Your task to perform on an android device: turn off priority inbox in the gmail app Image 0: 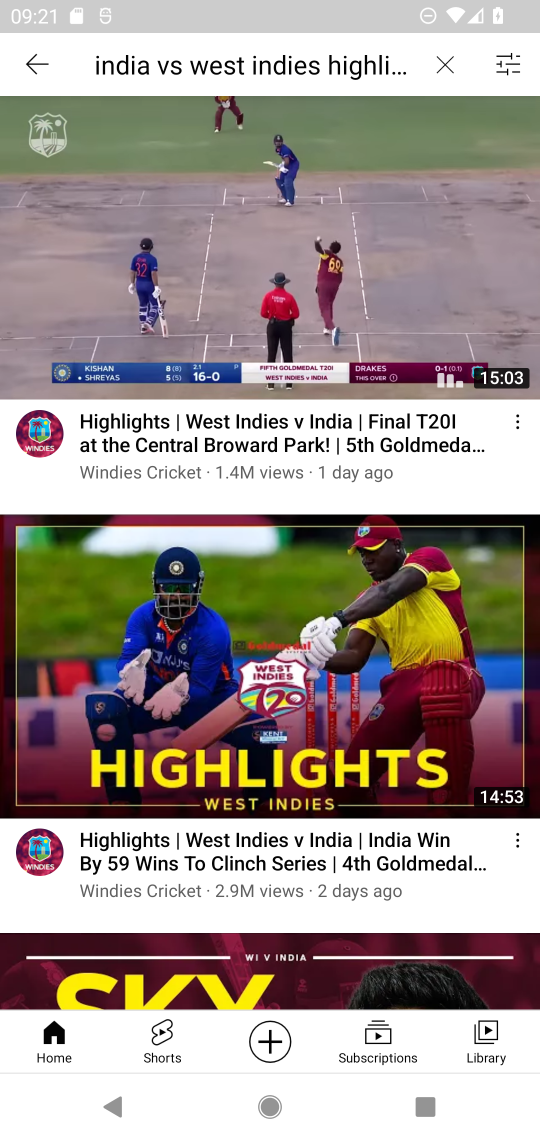
Step 0: press home button
Your task to perform on an android device: turn off priority inbox in the gmail app Image 1: 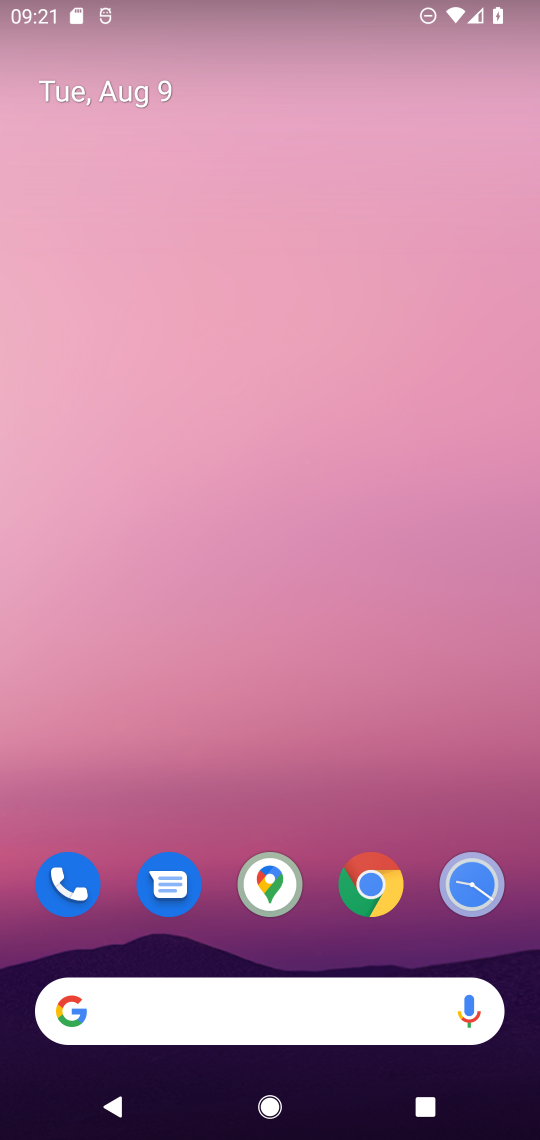
Step 1: drag from (132, 975) to (383, 134)
Your task to perform on an android device: turn off priority inbox in the gmail app Image 2: 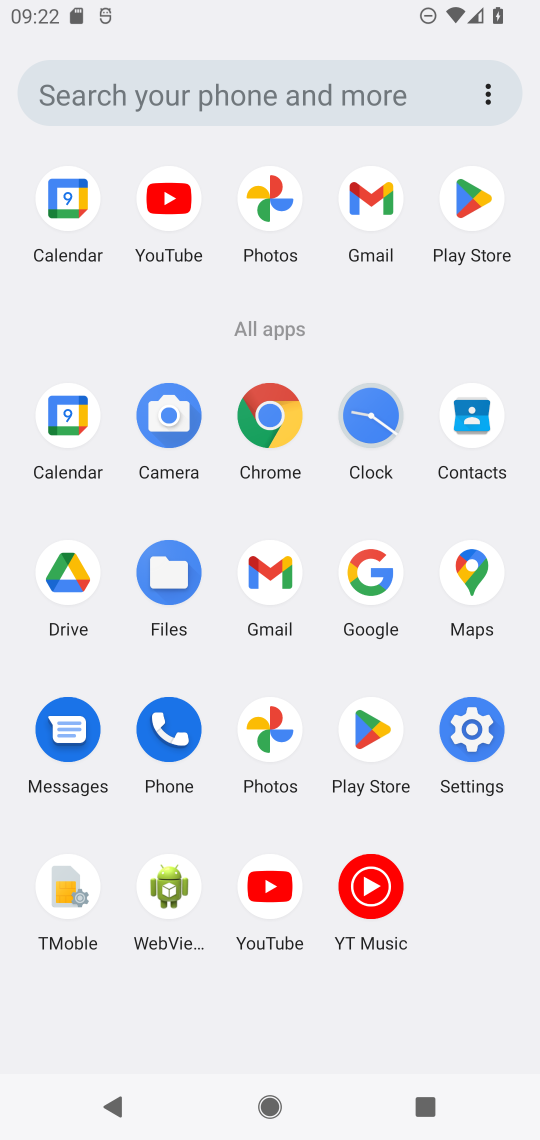
Step 2: click (268, 594)
Your task to perform on an android device: turn off priority inbox in the gmail app Image 3: 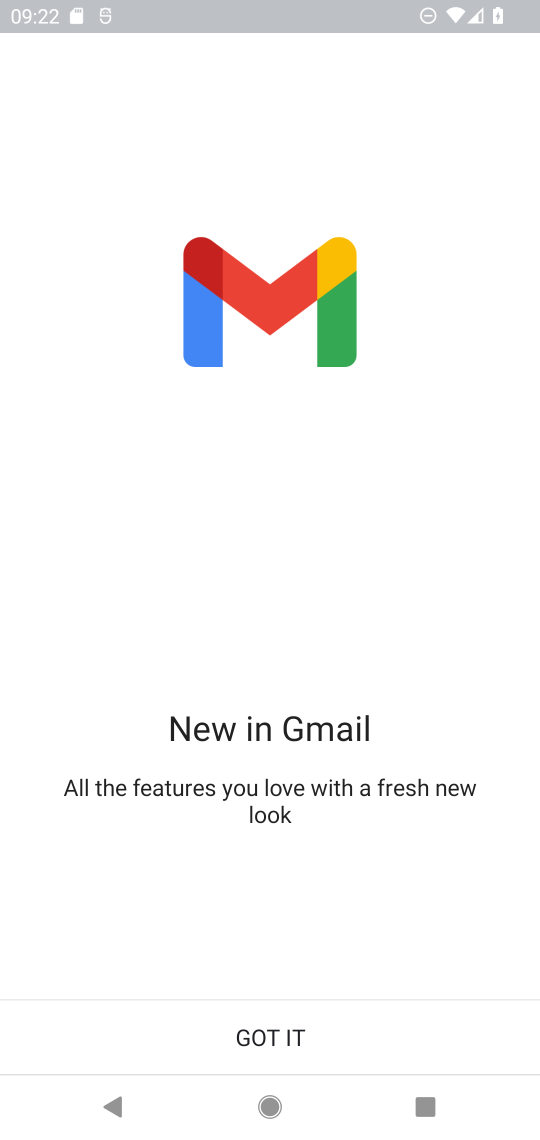
Step 3: click (339, 1028)
Your task to perform on an android device: turn off priority inbox in the gmail app Image 4: 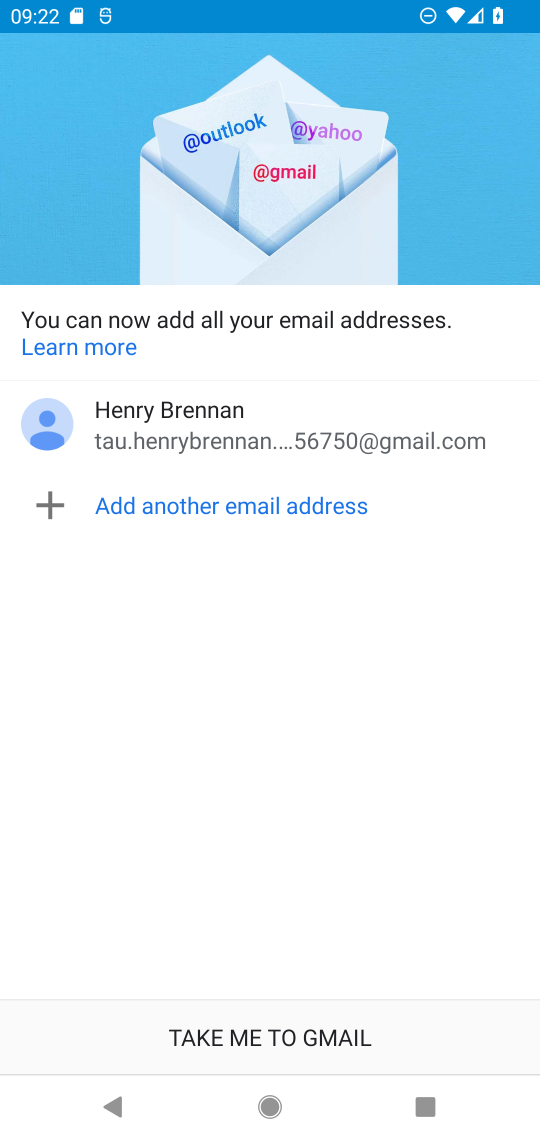
Step 4: click (339, 1022)
Your task to perform on an android device: turn off priority inbox in the gmail app Image 5: 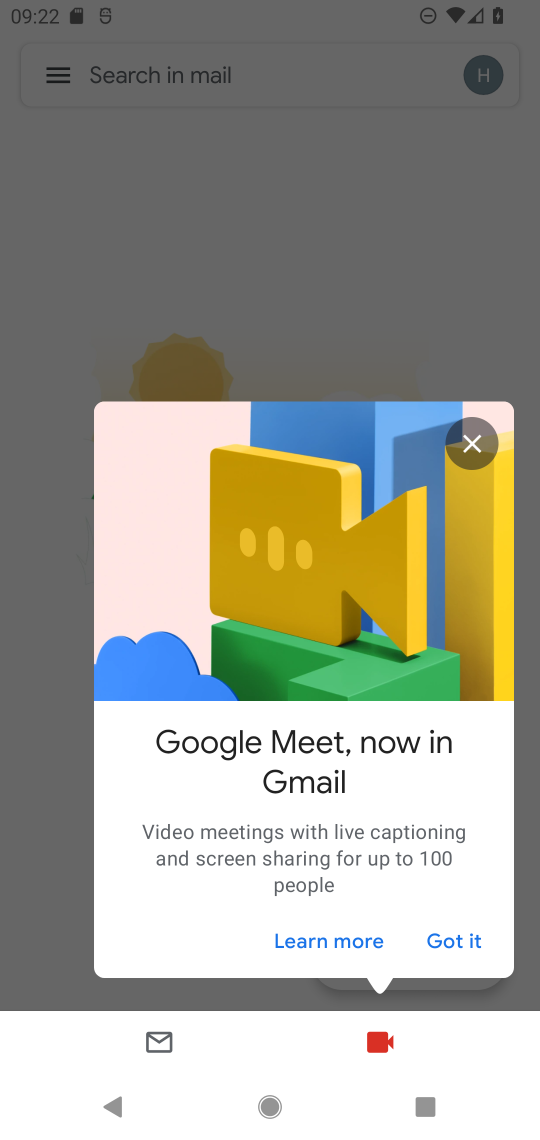
Step 5: click (454, 931)
Your task to perform on an android device: turn off priority inbox in the gmail app Image 6: 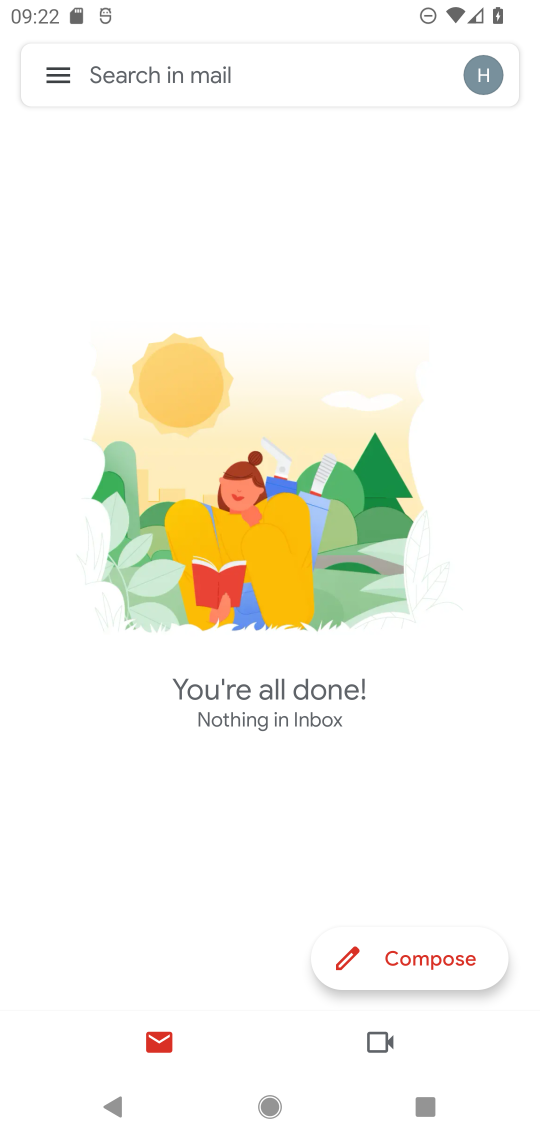
Step 6: click (47, 69)
Your task to perform on an android device: turn off priority inbox in the gmail app Image 7: 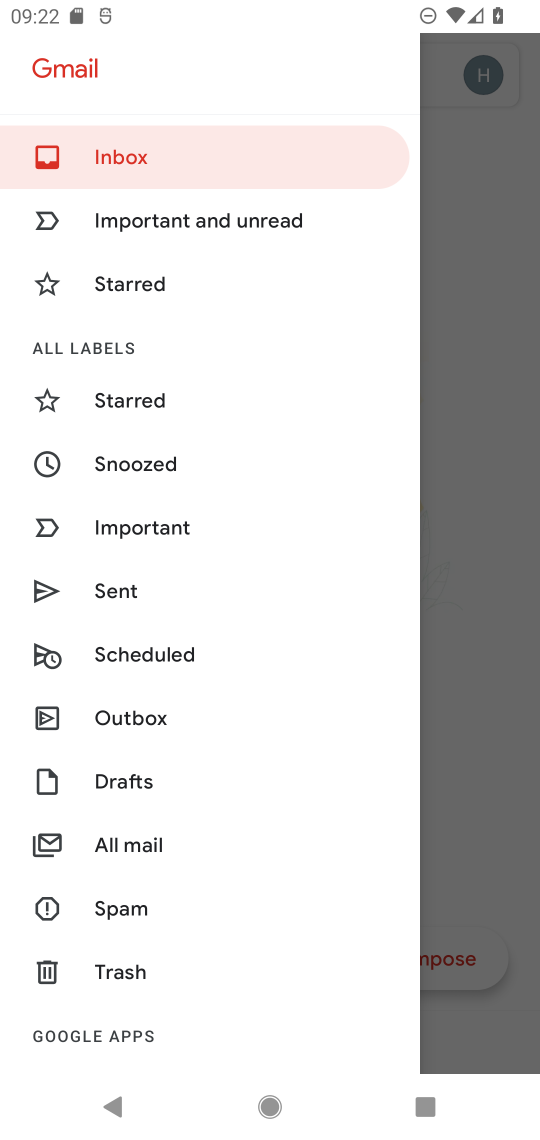
Step 7: drag from (148, 921) to (273, 319)
Your task to perform on an android device: turn off priority inbox in the gmail app Image 8: 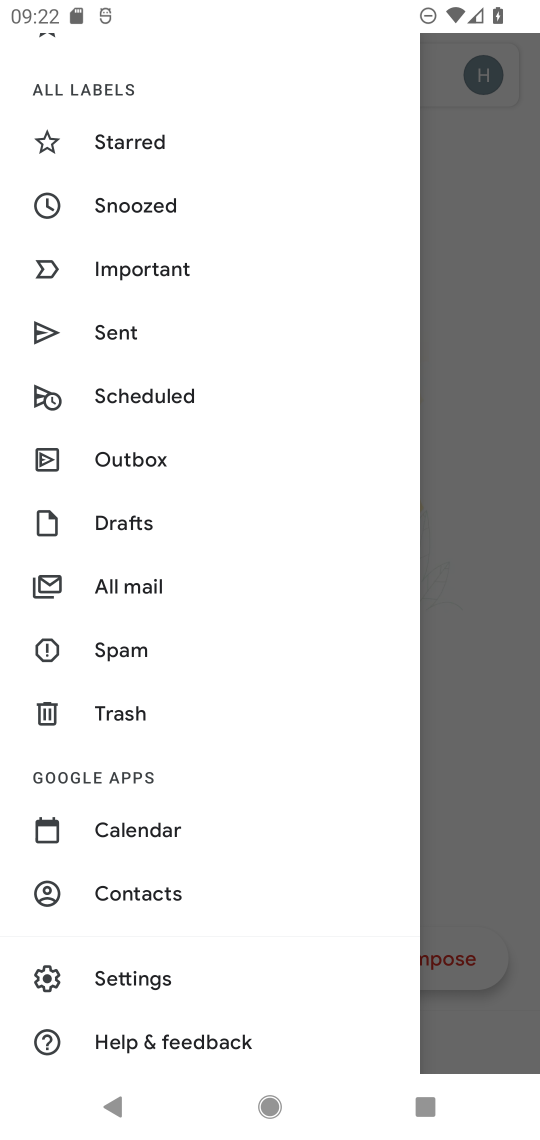
Step 8: click (140, 978)
Your task to perform on an android device: turn off priority inbox in the gmail app Image 9: 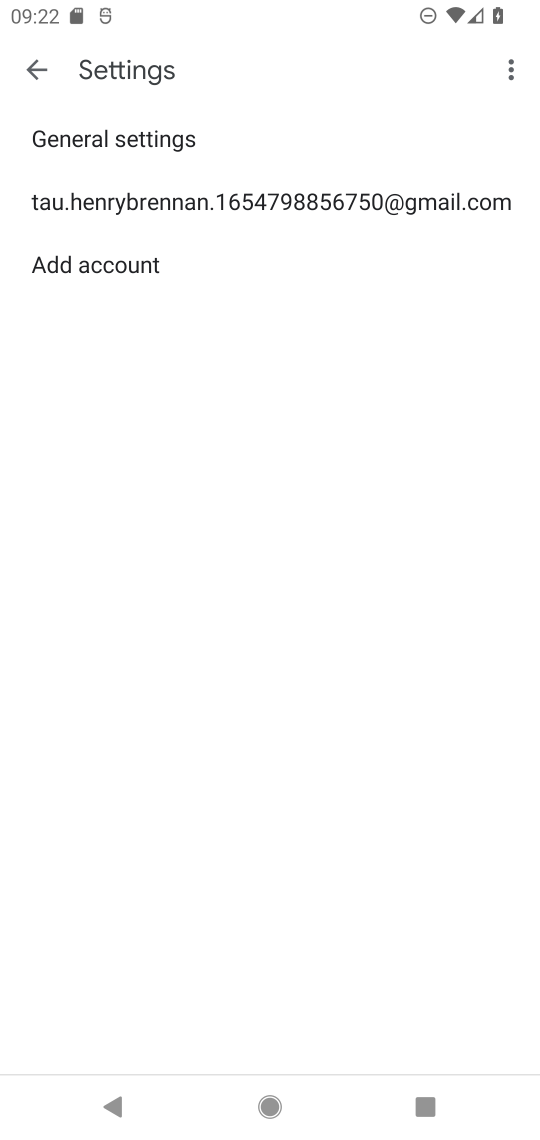
Step 9: click (426, 202)
Your task to perform on an android device: turn off priority inbox in the gmail app Image 10: 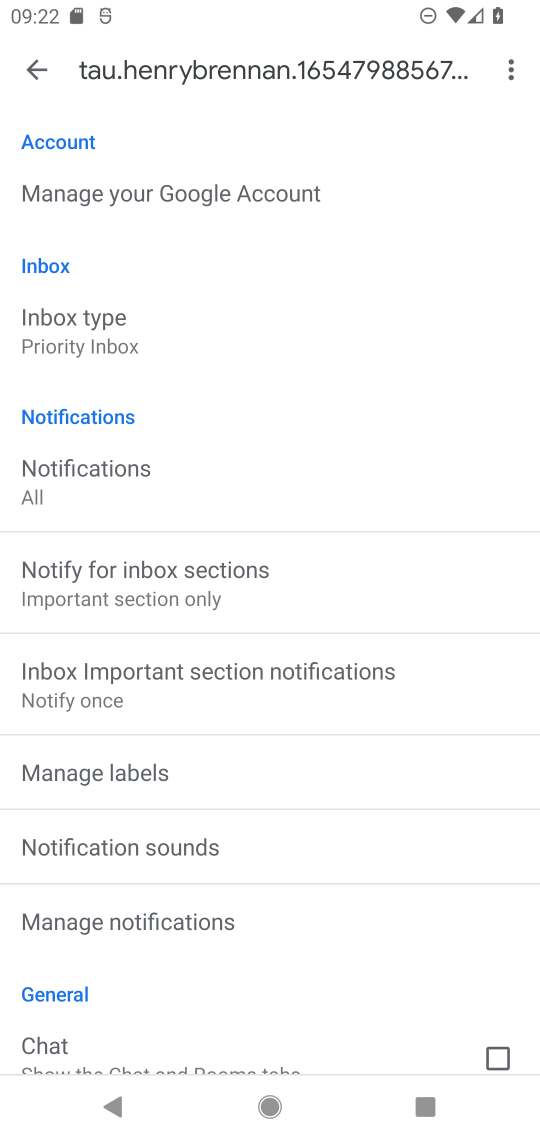
Step 10: click (72, 332)
Your task to perform on an android device: turn off priority inbox in the gmail app Image 11: 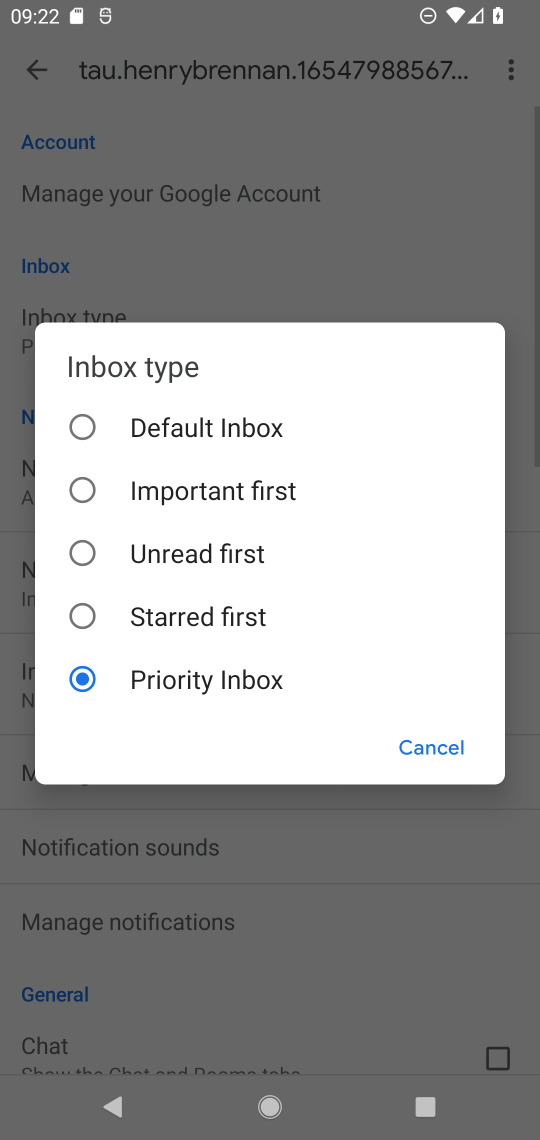
Step 11: click (105, 405)
Your task to perform on an android device: turn off priority inbox in the gmail app Image 12: 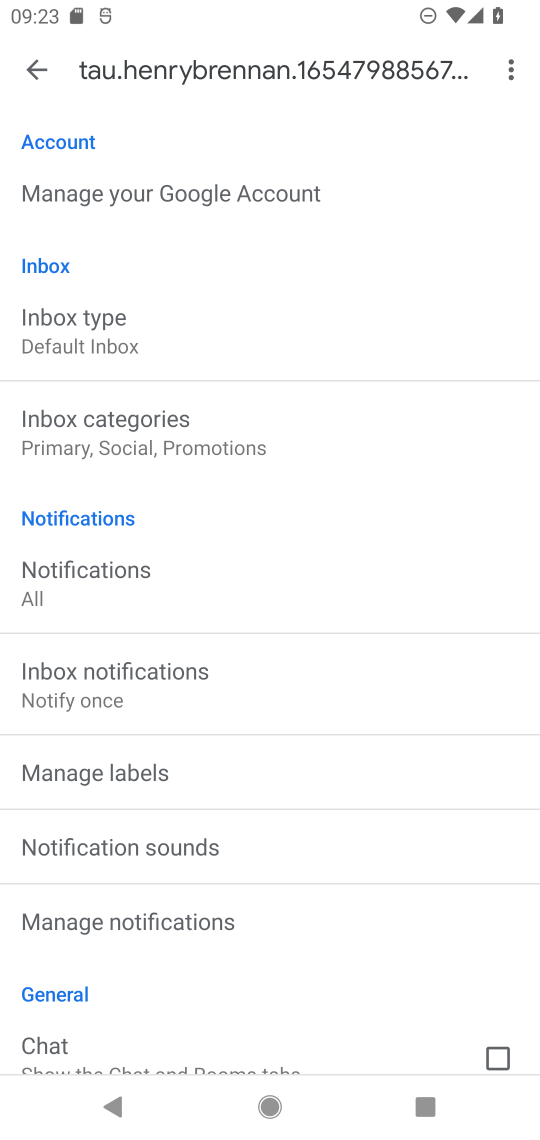
Step 12: task complete